Your task to perform on an android device: turn off picture-in-picture Image 0: 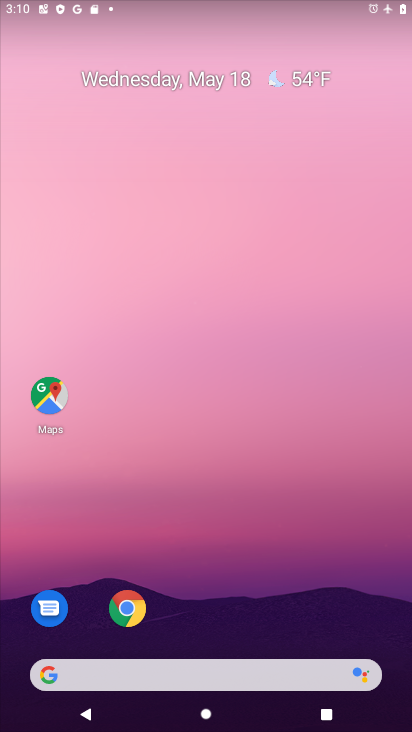
Step 0: click (130, 610)
Your task to perform on an android device: turn off picture-in-picture Image 1: 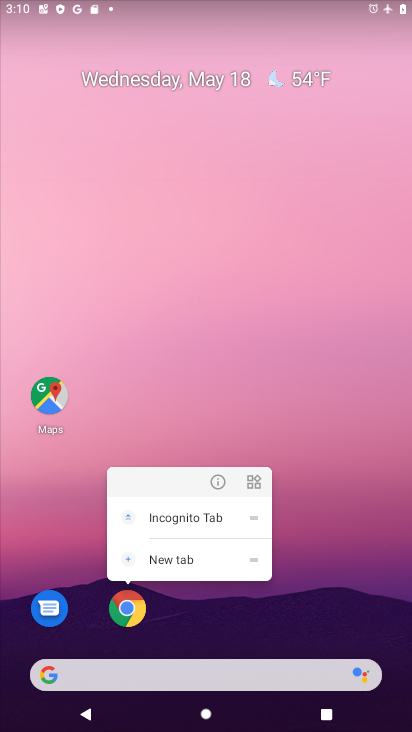
Step 1: click (216, 479)
Your task to perform on an android device: turn off picture-in-picture Image 2: 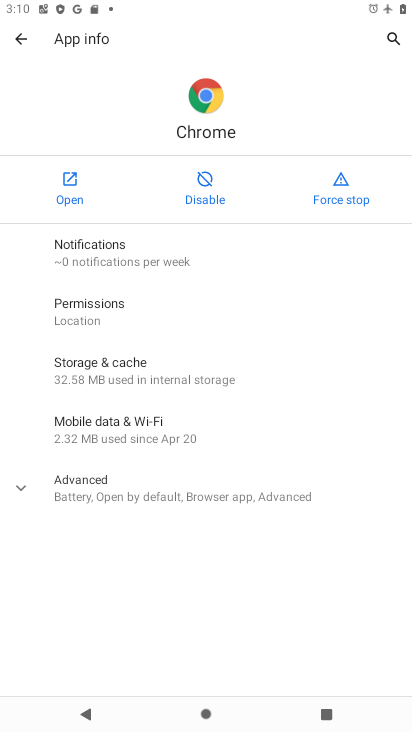
Step 2: click (24, 496)
Your task to perform on an android device: turn off picture-in-picture Image 3: 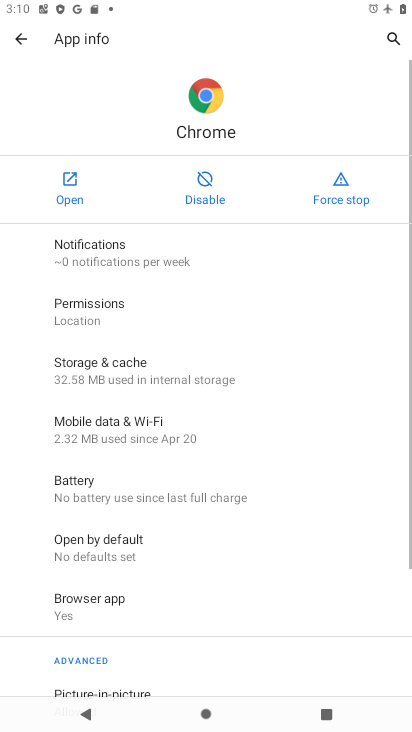
Step 3: drag from (192, 572) to (167, 253)
Your task to perform on an android device: turn off picture-in-picture Image 4: 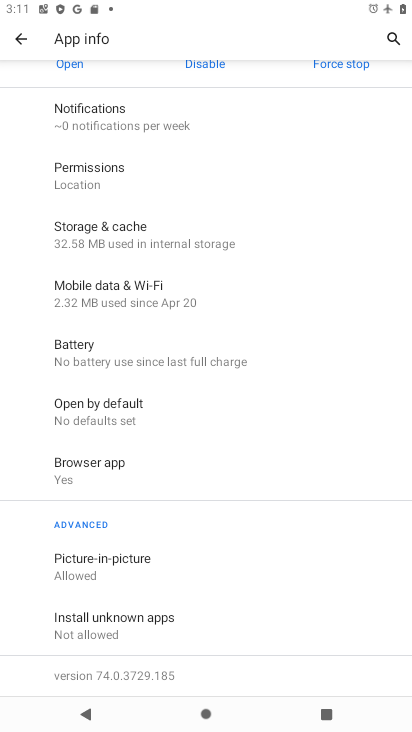
Step 4: click (91, 563)
Your task to perform on an android device: turn off picture-in-picture Image 5: 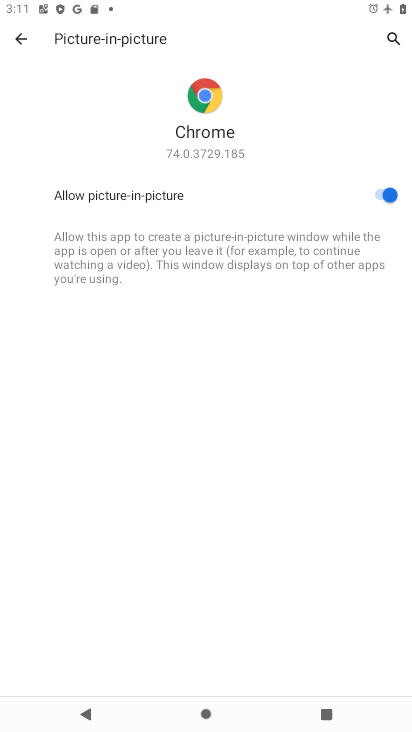
Step 5: click (388, 191)
Your task to perform on an android device: turn off picture-in-picture Image 6: 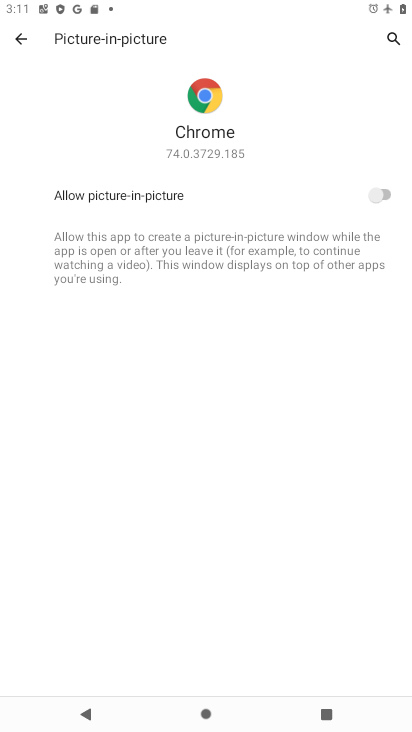
Step 6: task complete